Your task to perform on an android device: turn off sleep mode Image 0: 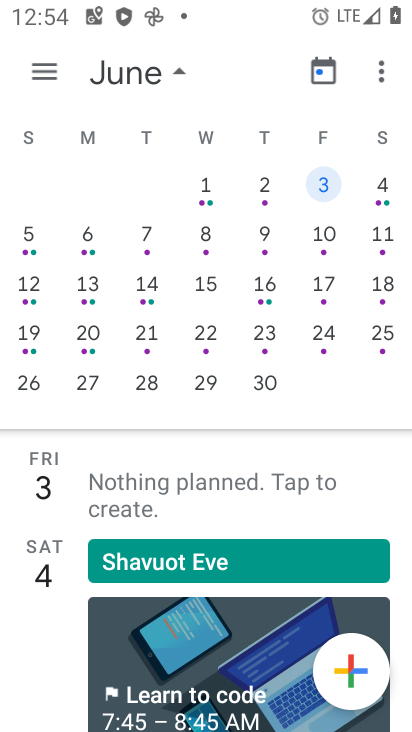
Step 0: press home button
Your task to perform on an android device: turn off sleep mode Image 1: 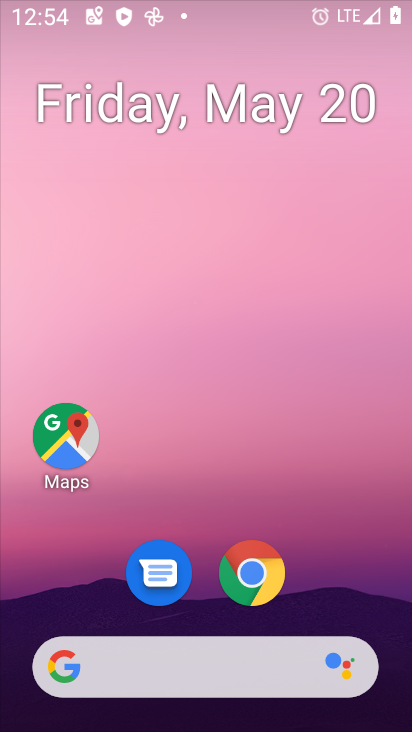
Step 1: drag from (326, 549) to (358, 38)
Your task to perform on an android device: turn off sleep mode Image 2: 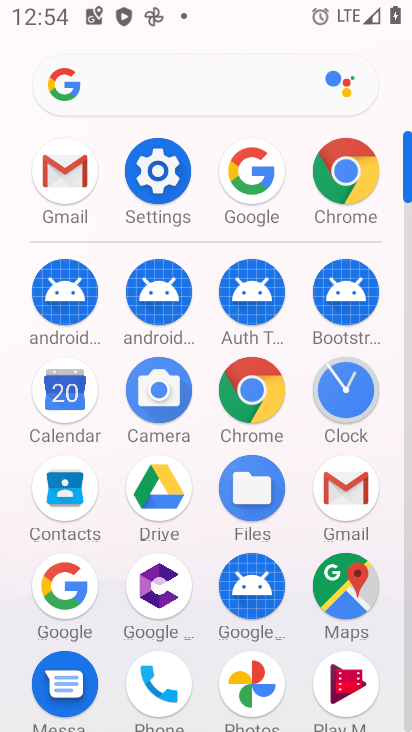
Step 2: click (157, 174)
Your task to perform on an android device: turn off sleep mode Image 3: 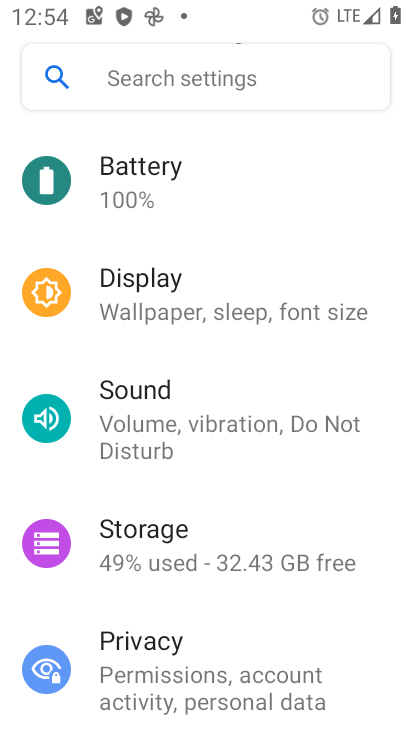
Step 3: click (204, 314)
Your task to perform on an android device: turn off sleep mode Image 4: 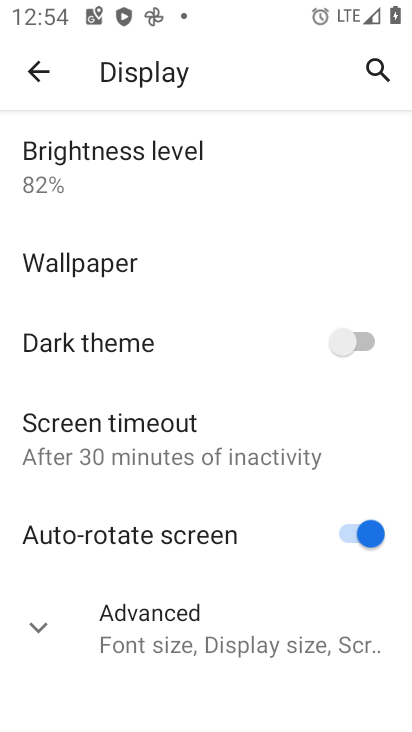
Step 4: click (177, 423)
Your task to perform on an android device: turn off sleep mode Image 5: 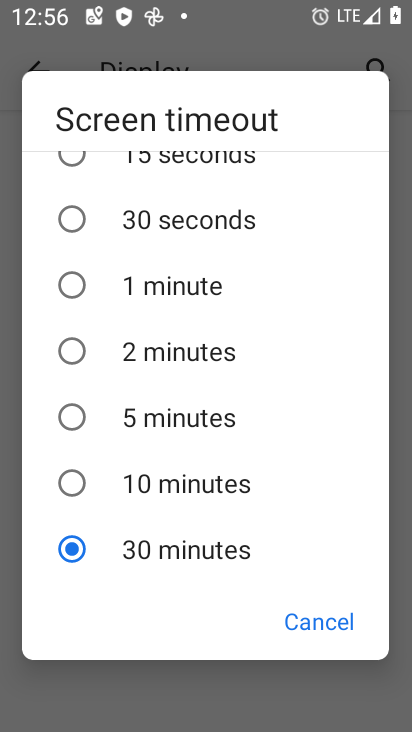
Step 5: task complete